Your task to perform on an android device: open the mobile data screen to see how much data has been used Image 0: 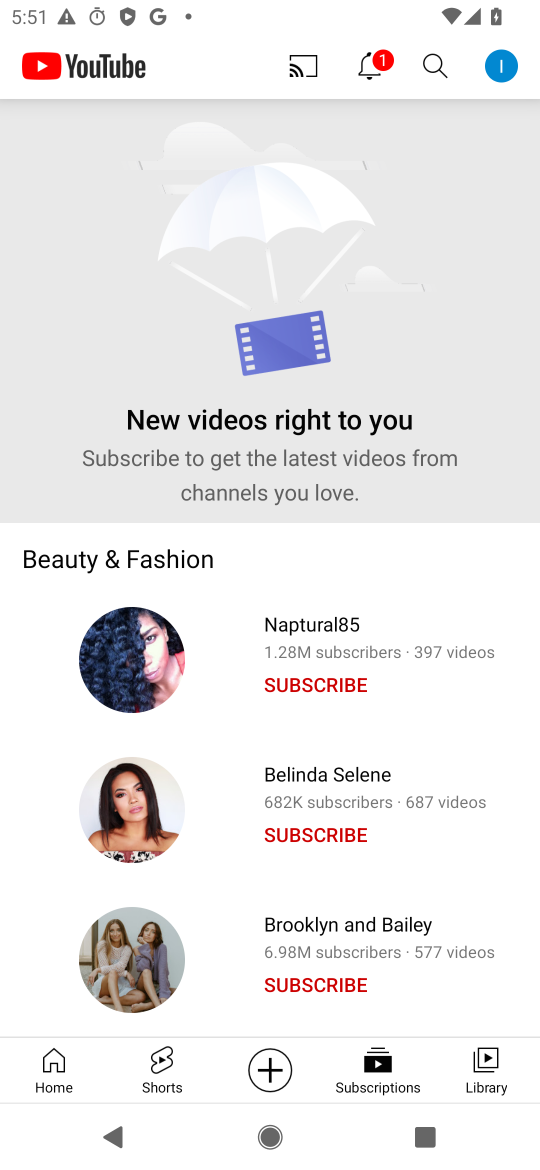
Step 0: press home button
Your task to perform on an android device: open the mobile data screen to see how much data has been used Image 1: 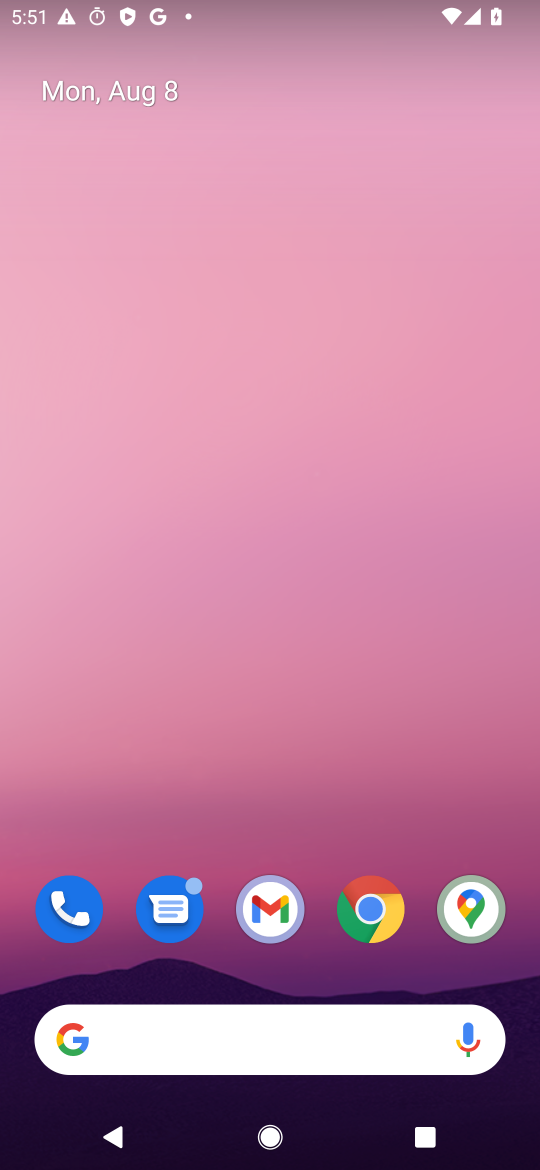
Step 1: drag from (303, 850) to (401, 382)
Your task to perform on an android device: open the mobile data screen to see how much data has been used Image 2: 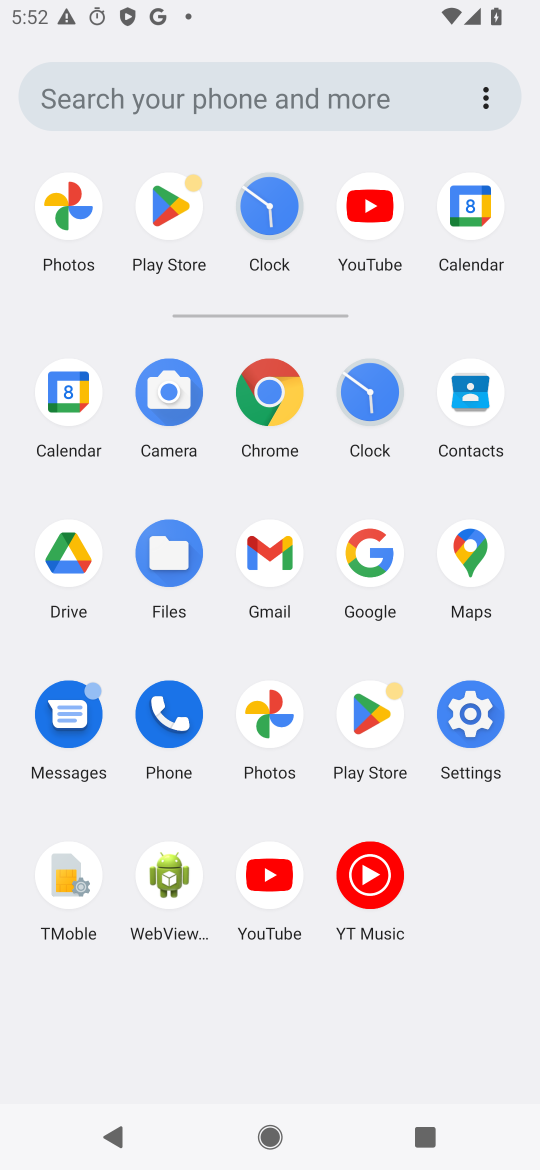
Step 2: click (471, 714)
Your task to perform on an android device: open the mobile data screen to see how much data has been used Image 3: 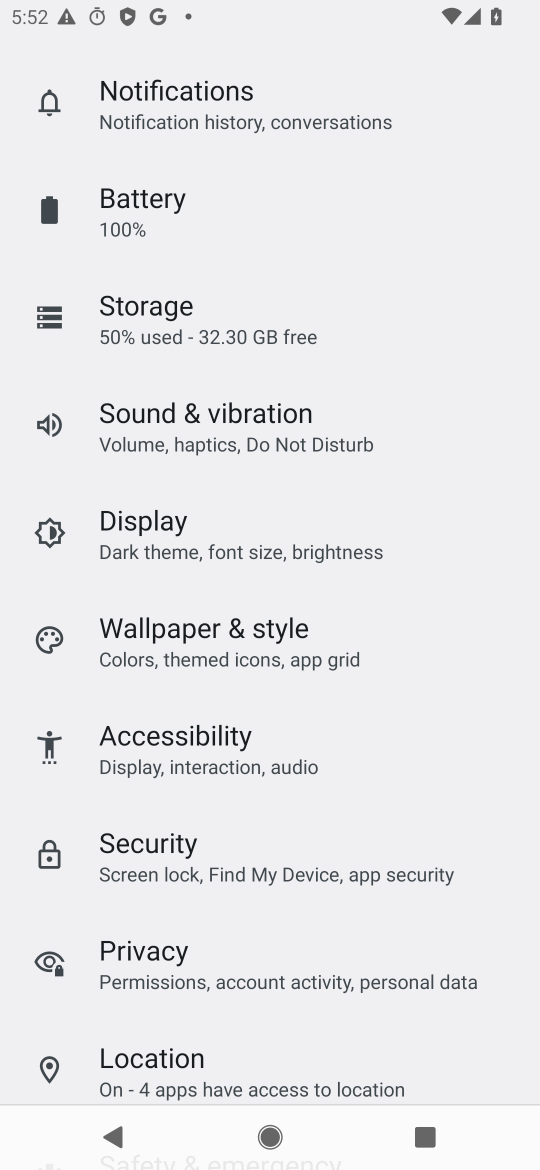
Step 3: drag from (360, 230) to (322, 858)
Your task to perform on an android device: open the mobile data screen to see how much data has been used Image 4: 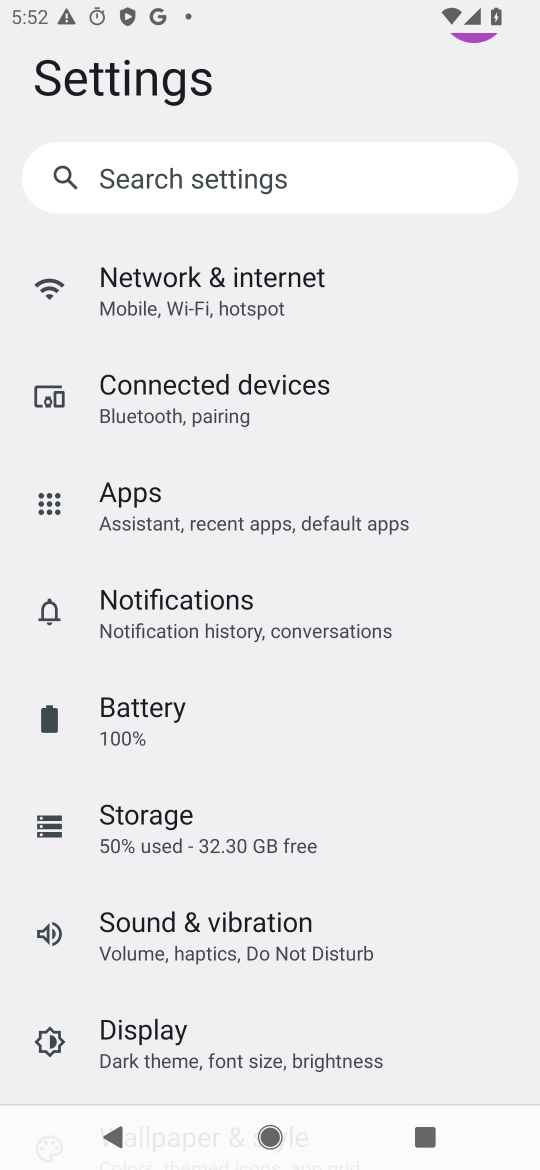
Step 4: click (242, 297)
Your task to perform on an android device: open the mobile data screen to see how much data has been used Image 5: 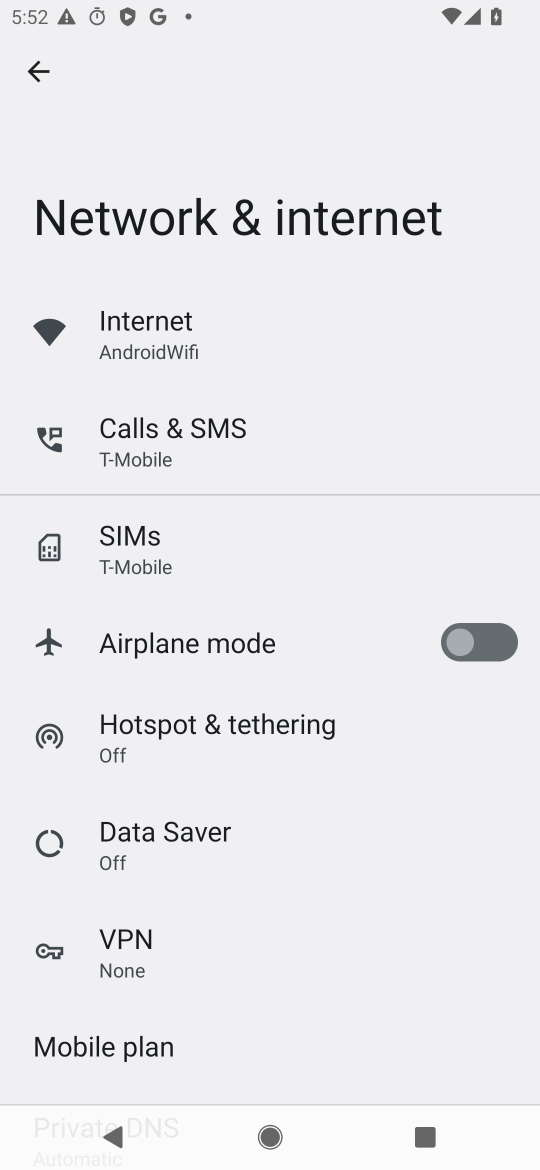
Step 5: click (175, 346)
Your task to perform on an android device: open the mobile data screen to see how much data has been used Image 6: 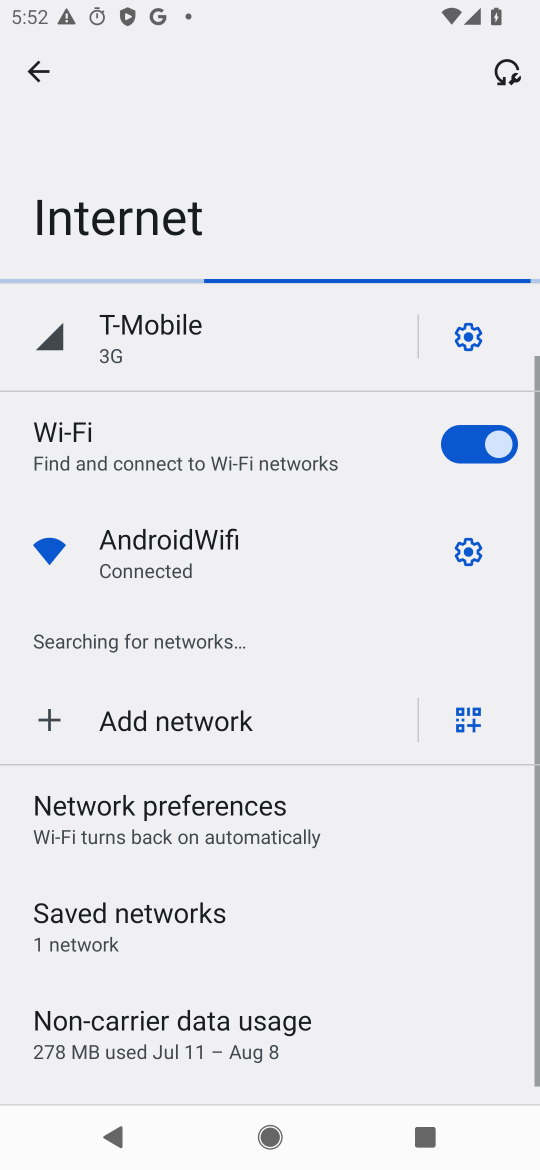
Step 6: click (173, 329)
Your task to perform on an android device: open the mobile data screen to see how much data has been used Image 7: 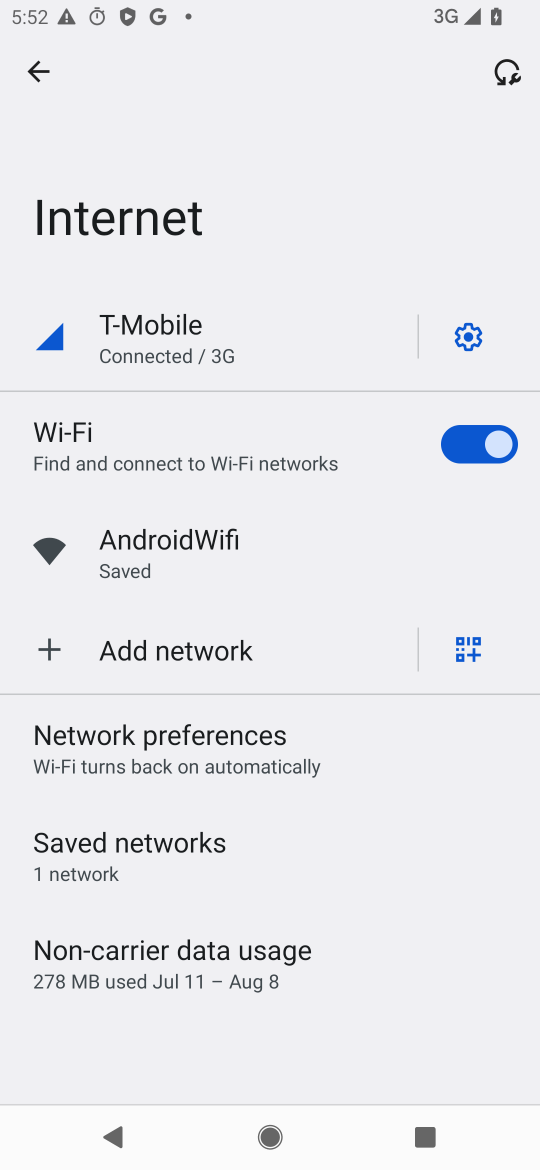
Step 7: click (463, 336)
Your task to perform on an android device: open the mobile data screen to see how much data has been used Image 8: 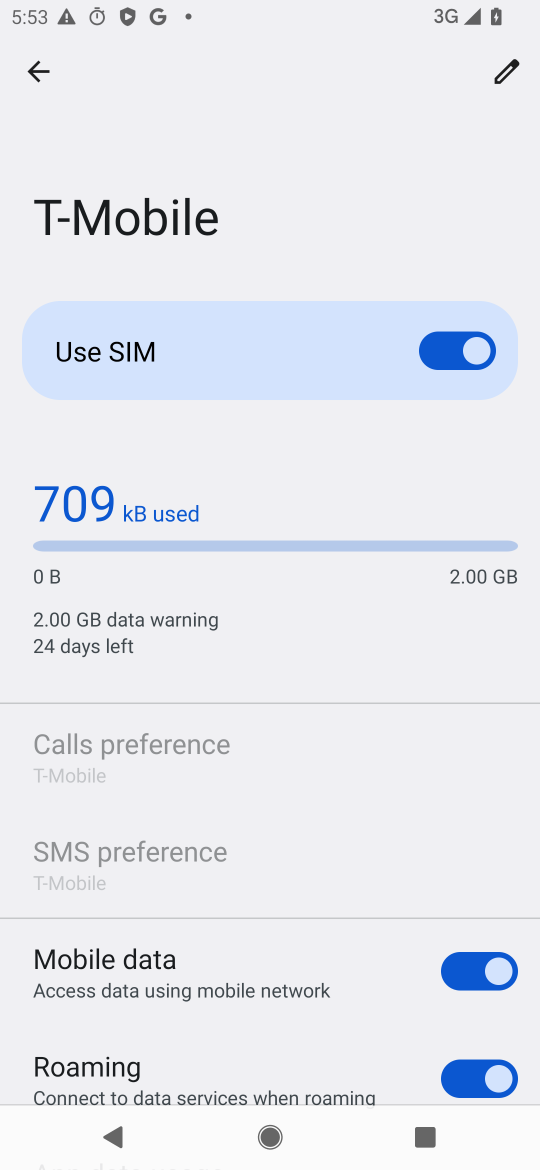
Step 8: task complete